Your task to perform on an android device: Show me popular videos on Youtube Image 0: 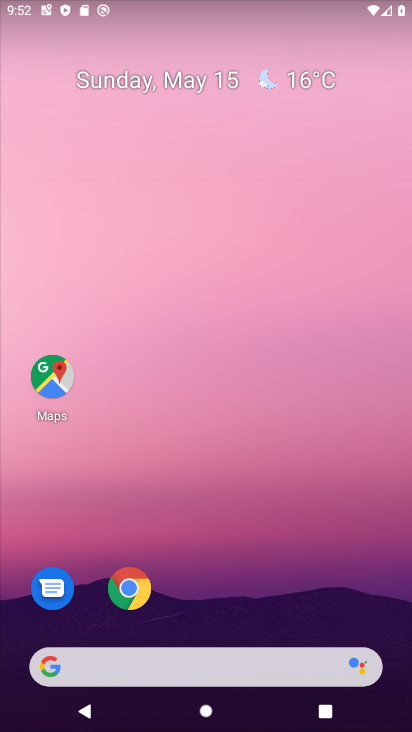
Step 0: drag from (225, 510) to (293, 1)
Your task to perform on an android device: Show me popular videos on Youtube Image 1: 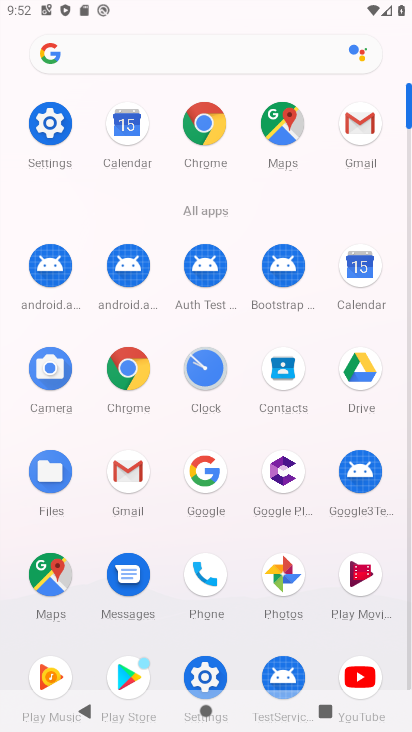
Step 1: click (352, 667)
Your task to perform on an android device: Show me popular videos on Youtube Image 2: 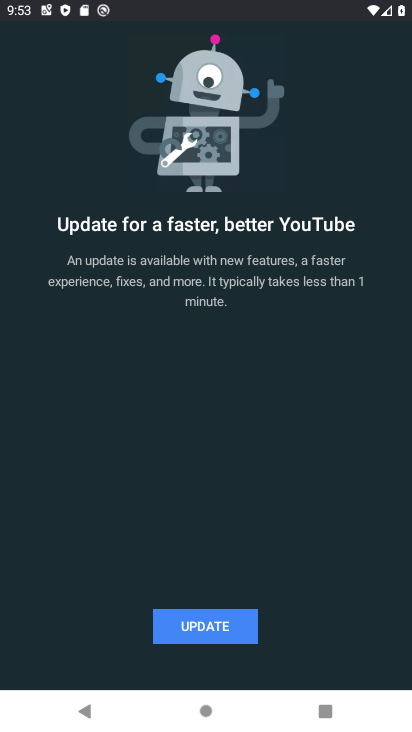
Step 2: click (226, 632)
Your task to perform on an android device: Show me popular videos on Youtube Image 3: 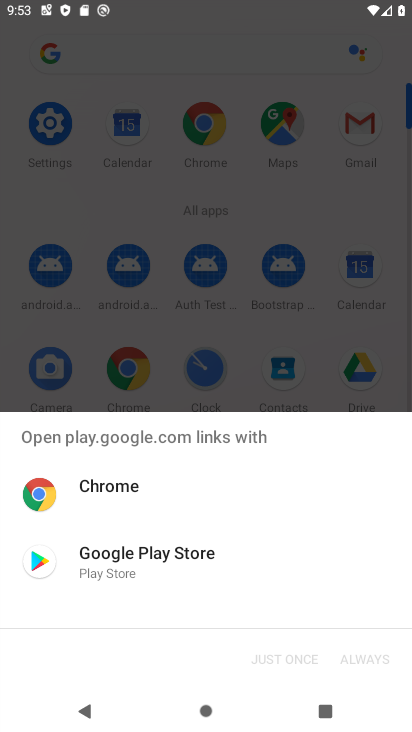
Step 3: click (162, 563)
Your task to perform on an android device: Show me popular videos on Youtube Image 4: 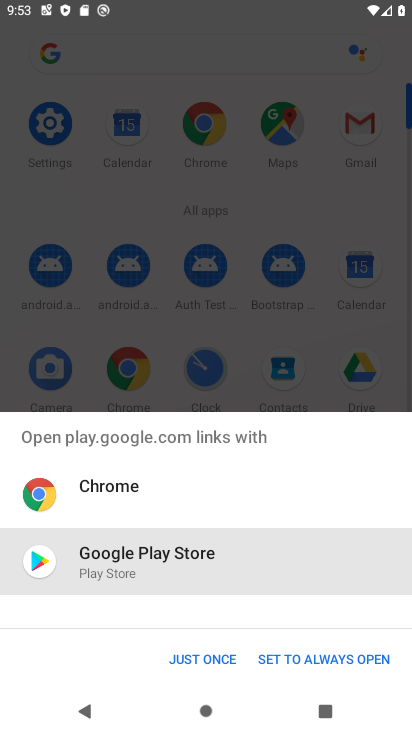
Step 4: click (213, 659)
Your task to perform on an android device: Show me popular videos on Youtube Image 5: 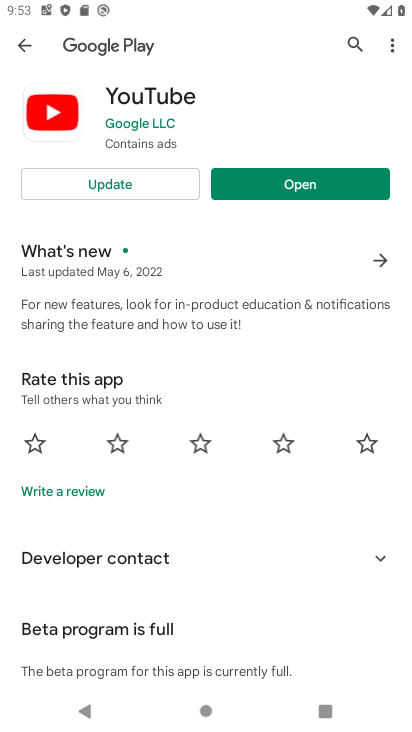
Step 5: click (103, 182)
Your task to perform on an android device: Show me popular videos on Youtube Image 6: 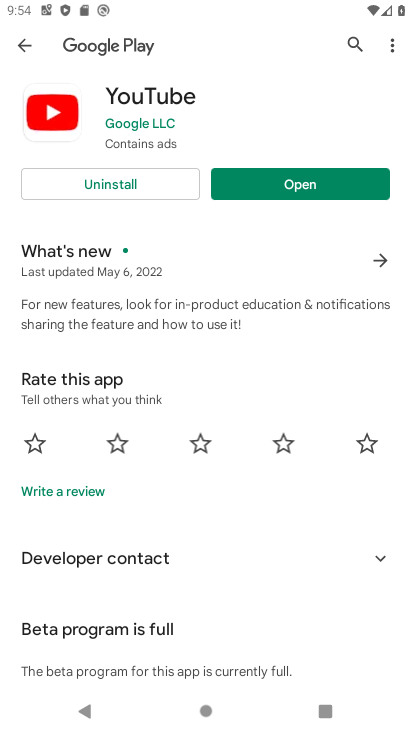
Step 6: click (313, 178)
Your task to perform on an android device: Show me popular videos on Youtube Image 7: 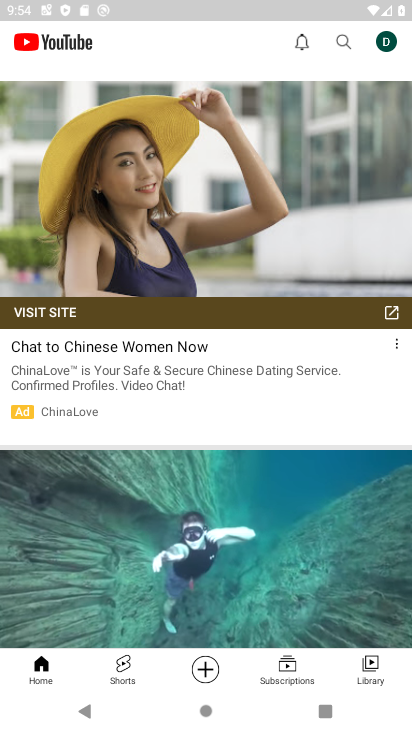
Step 7: click (371, 666)
Your task to perform on an android device: Show me popular videos on Youtube Image 8: 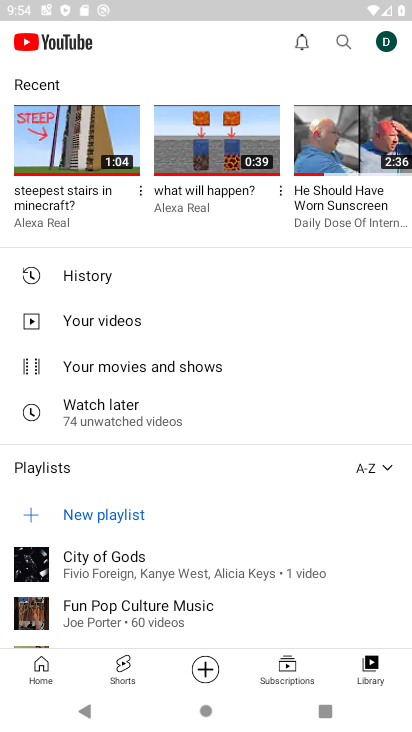
Step 8: click (289, 673)
Your task to perform on an android device: Show me popular videos on Youtube Image 9: 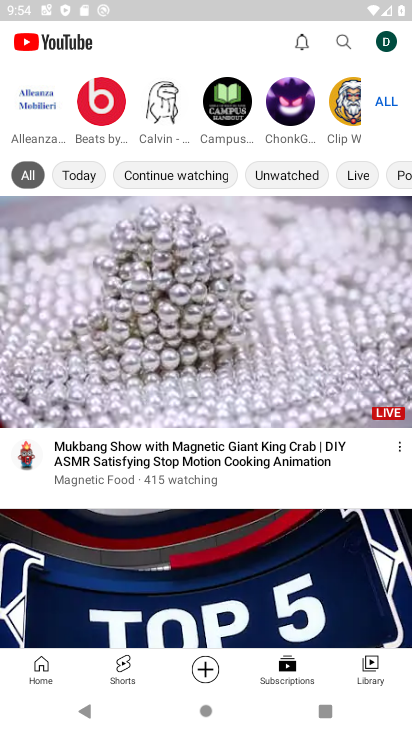
Step 9: click (128, 656)
Your task to perform on an android device: Show me popular videos on Youtube Image 10: 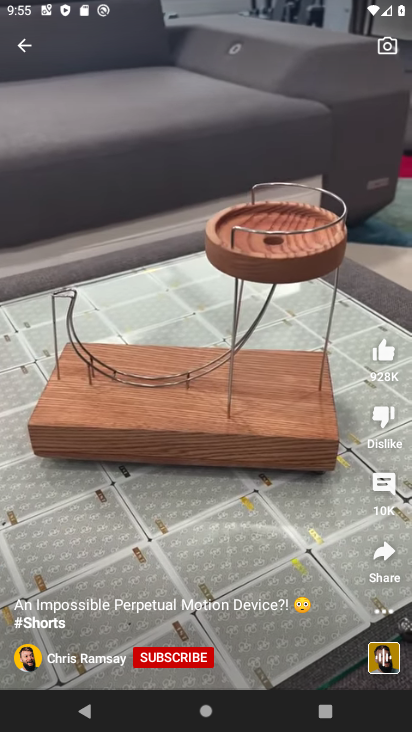
Step 10: click (28, 45)
Your task to perform on an android device: Show me popular videos on Youtube Image 11: 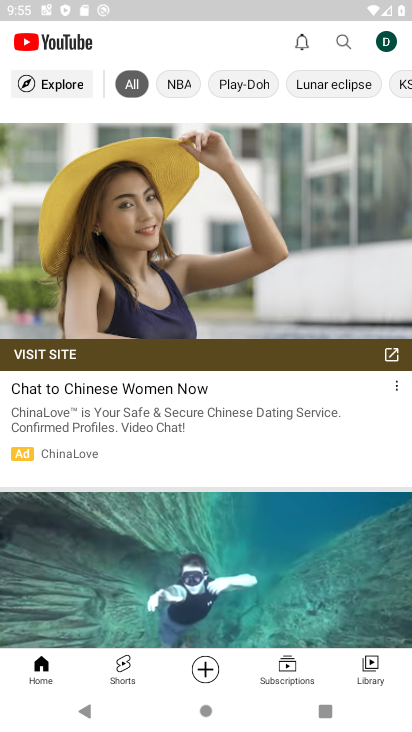
Step 11: task complete